Your task to perform on an android device: Open Google Image 0: 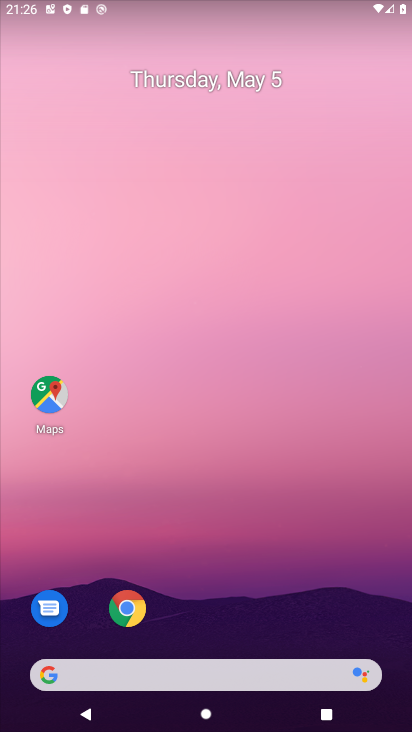
Step 0: drag from (257, 563) to (263, 46)
Your task to perform on an android device: Open Google Image 1: 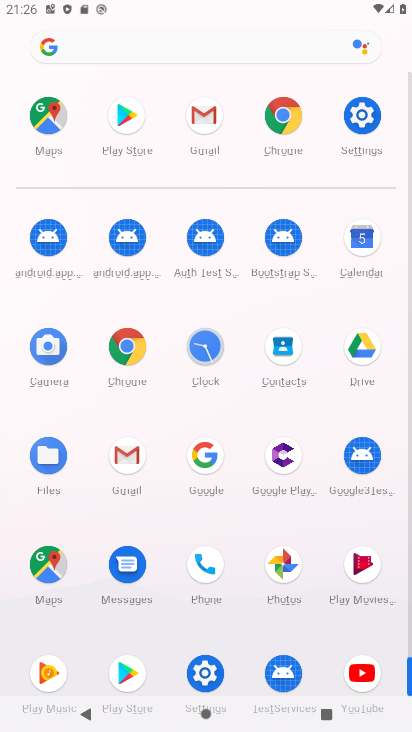
Step 1: click (134, 343)
Your task to perform on an android device: Open Google Image 2: 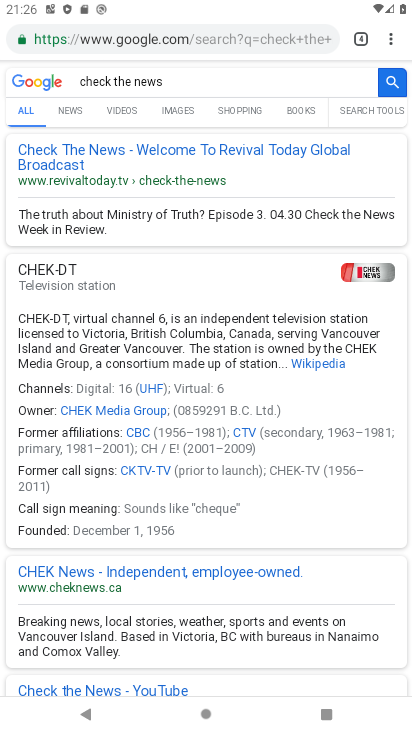
Step 2: click (385, 39)
Your task to perform on an android device: Open Google Image 3: 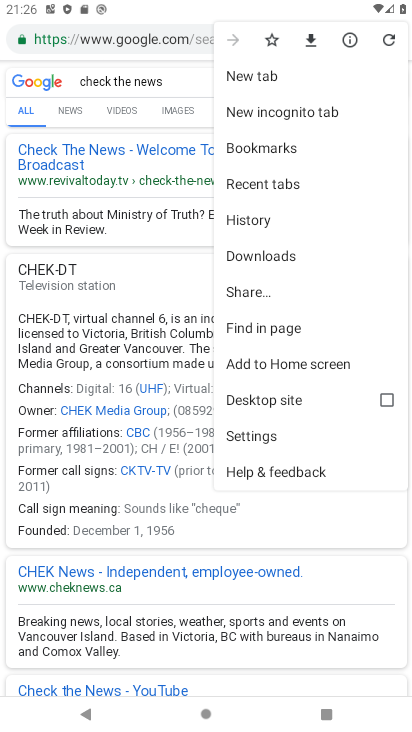
Step 3: click (276, 77)
Your task to perform on an android device: Open Google Image 4: 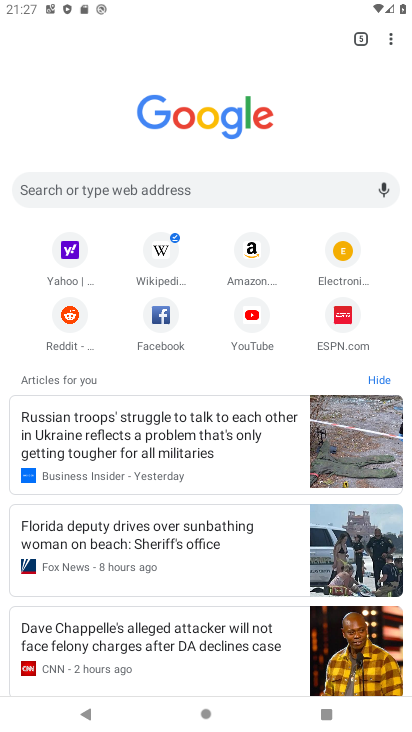
Step 4: task complete